Your task to perform on an android device: Go to notification settings Image 0: 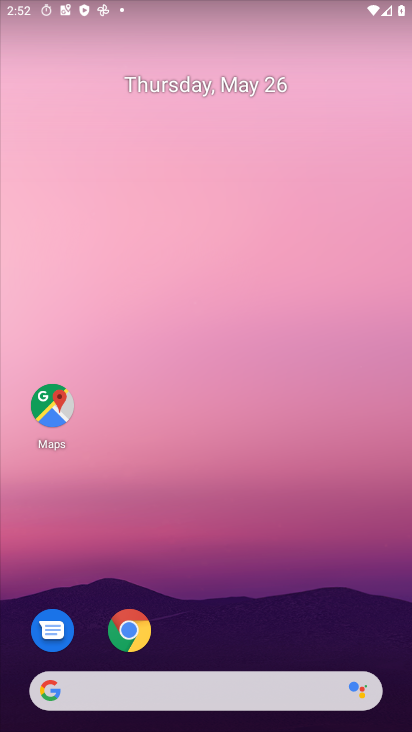
Step 0: drag from (222, 532) to (215, 98)
Your task to perform on an android device: Go to notification settings Image 1: 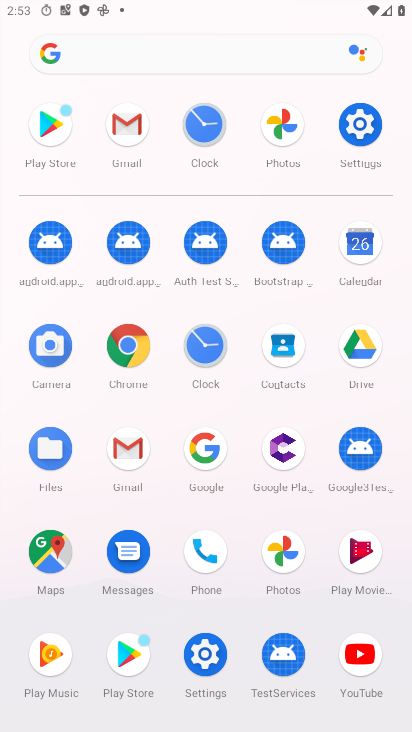
Step 1: click (352, 123)
Your task to perform on an android device: Go to notification settings Image 2: 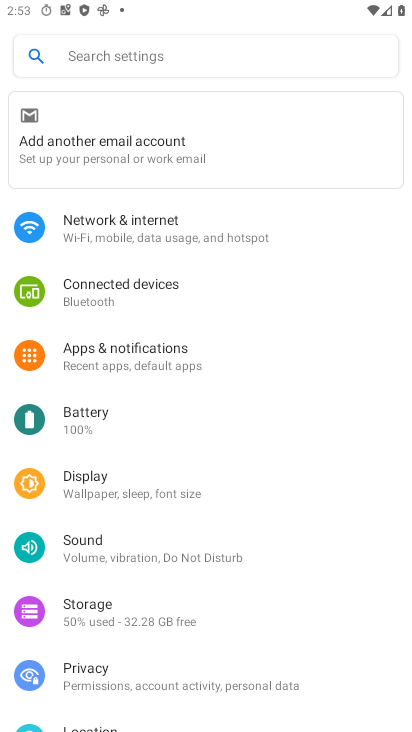
Step 2: click (190, 367)
Your task to perform on an android device: Go to notification settings Image 3: 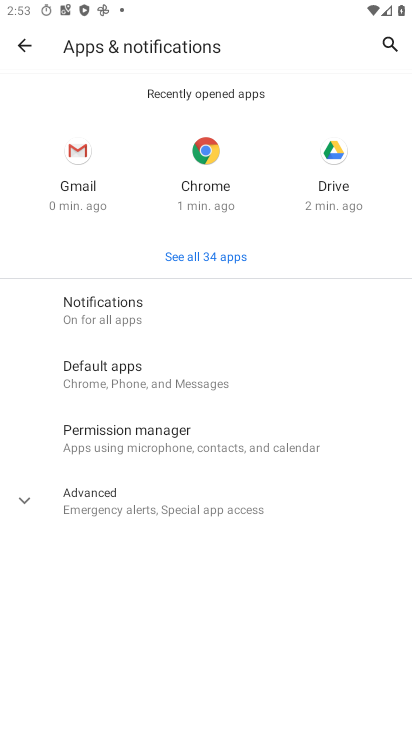
Step 3: click (201, 311)
Your task to perform on an android device: Go to notification settings Image 4: 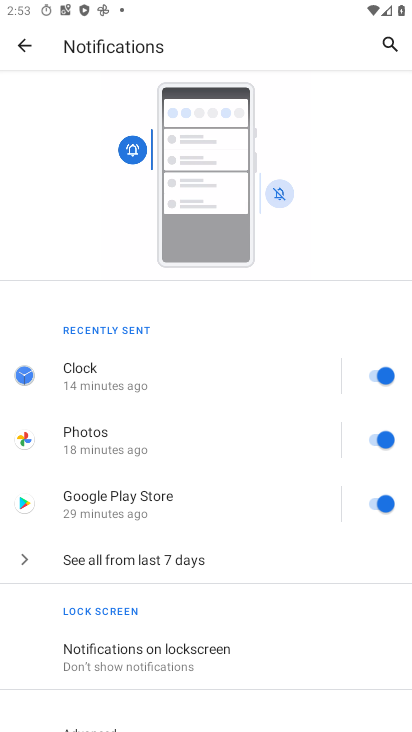
Step 4: task complete